Your task to perform on an android device: Open location settings Image 0: 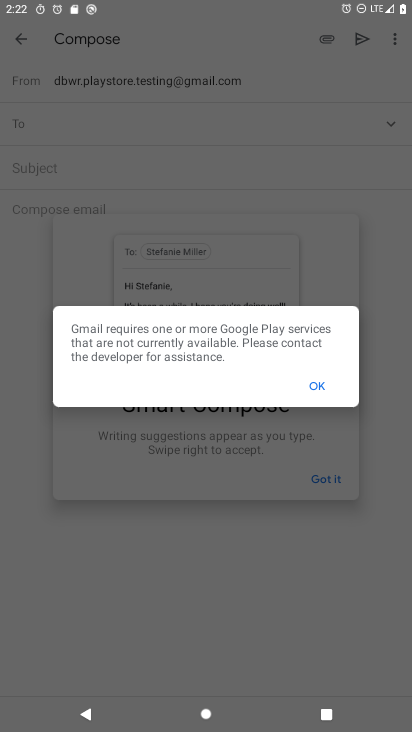
Step 0: press home button
Your task to perform on an android device: Open location settings Image 1: 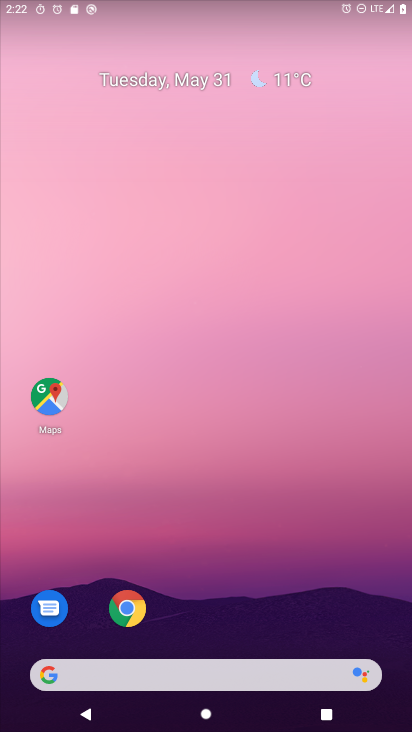
Step 1: drag from (272, 632) to (274, 2)
Your task to perform on an android device: Open location settings Image 2: 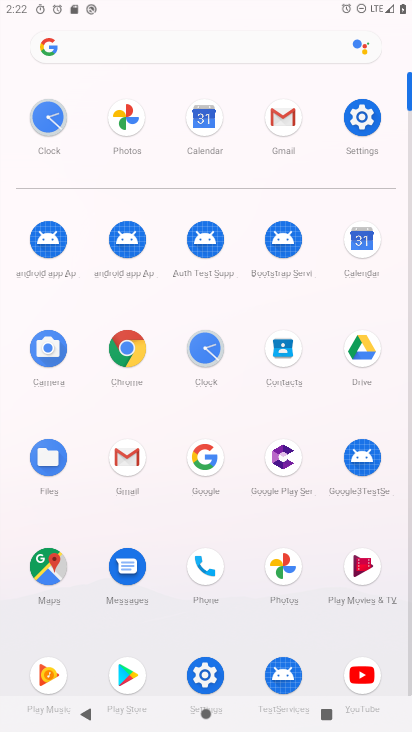
Step 2: click (365, 120)
Your task to perform on an android device: Open location settings Image 3: 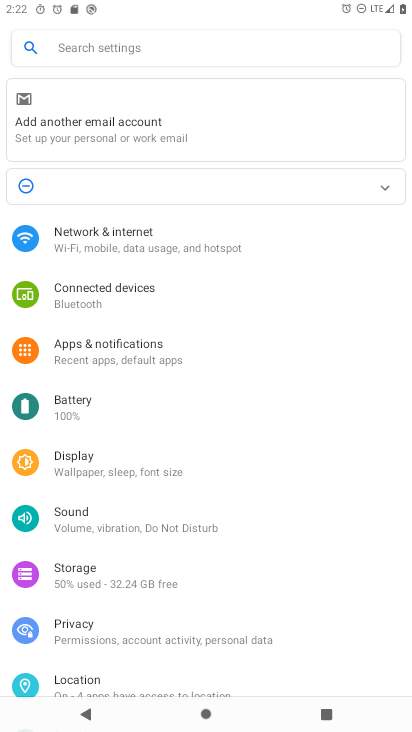
Step 3: click (72, 680)
Your task to perform on an android device: Open location settings Image 4: 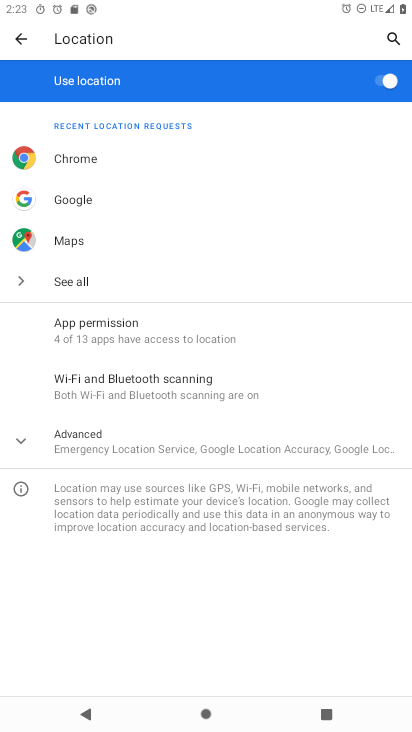
Step 4: task complete